Your task to perform on an android device: Go to settings Image 0: 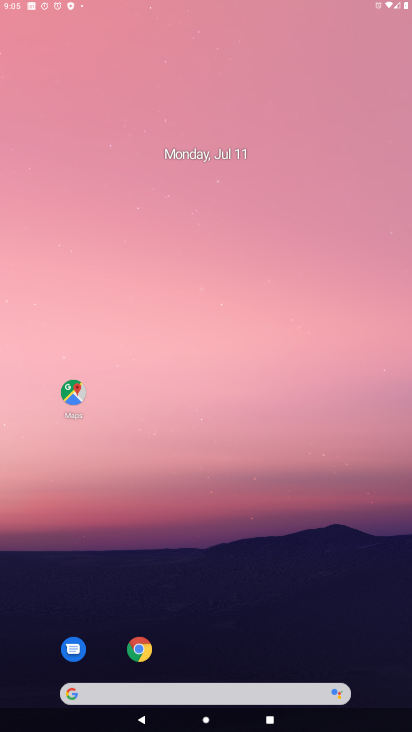
Step 0: click (237, 224)
Your task to perform on an android device: Go to settings Image 1: 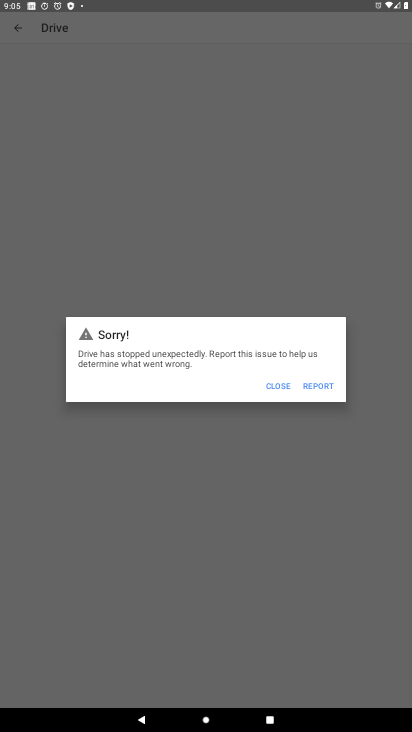
Step 1: press home button
Your task to perform on an android device: Go to settings Image 2: 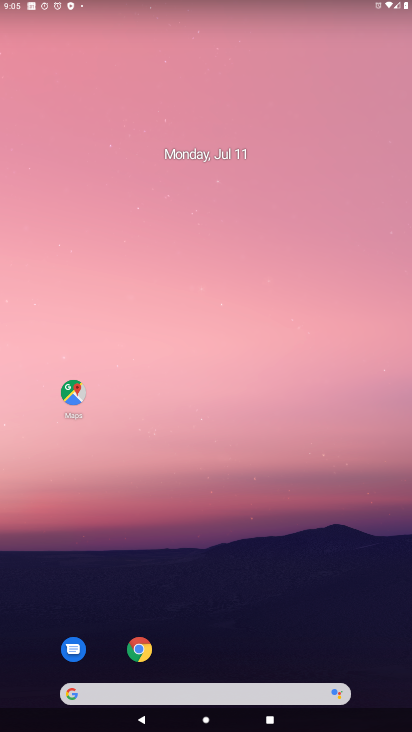
Step 2: drag from (193, 688) to (229, 242)
Your task to perform on an android device: Go to settings Image 3: 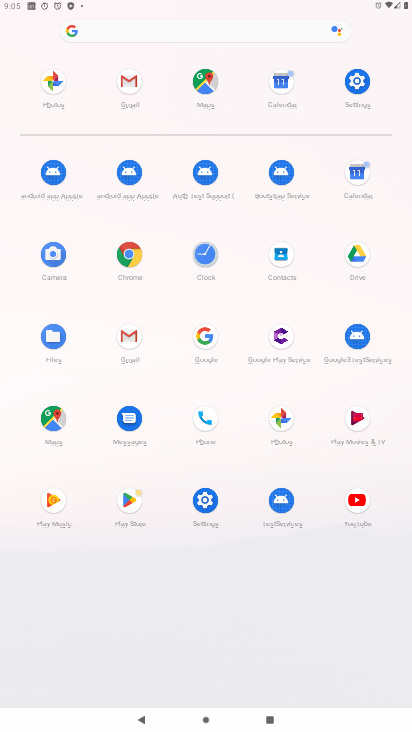
Step 3: click (355, 80)
Your task to perform on an android device: Go to settings Image 4: 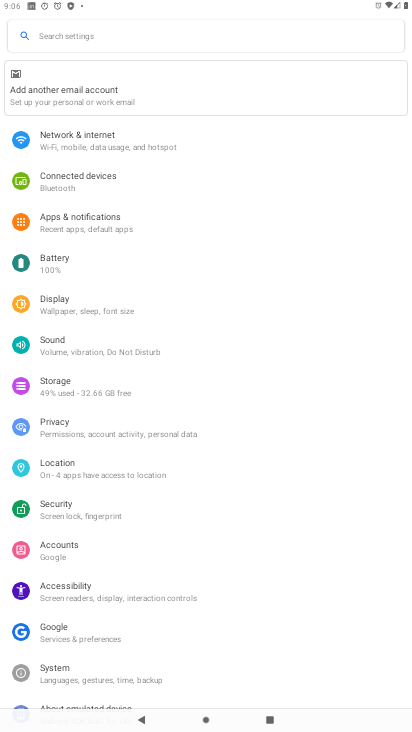
Step 4: task complete